Your task to perform on an android device: Go to wifi settings Image 0: 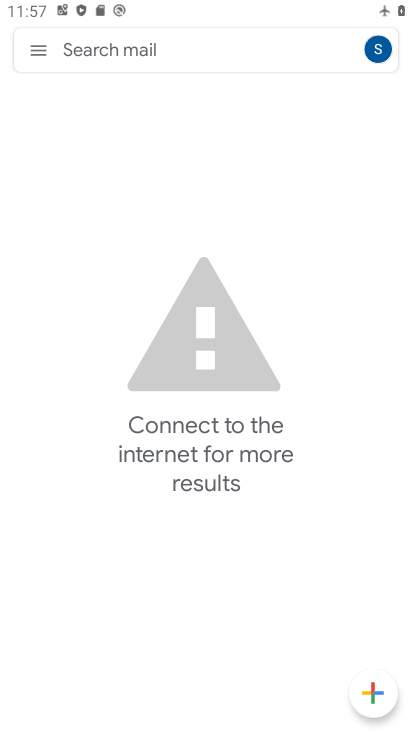
Step 0: press home button
Your task to perform on an android device: Go to wifi settings Image 1: 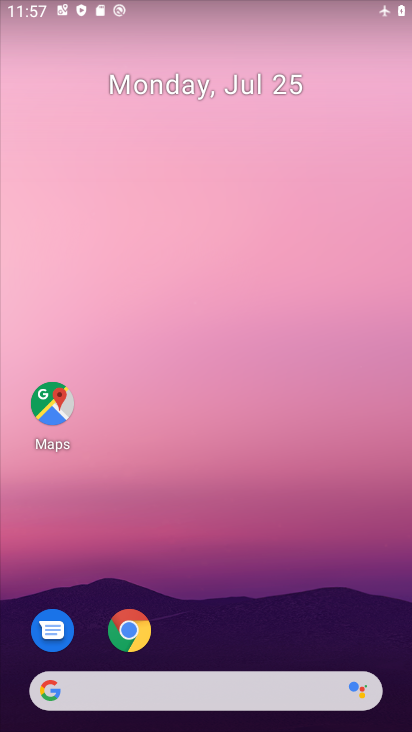
Step 1: drag from (350, 634) to (365, 123)
Your task to perform on an android device: Go to wifi settings Image 2: 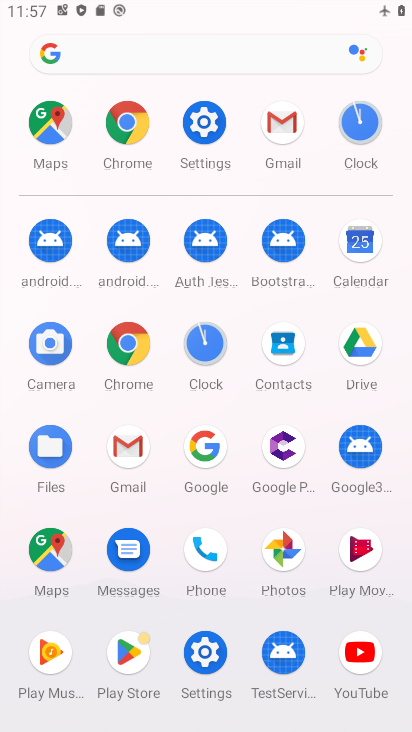
Step 2: click (203, 129)
Your task to perform on an android device: Go to wifi settings Image 3: 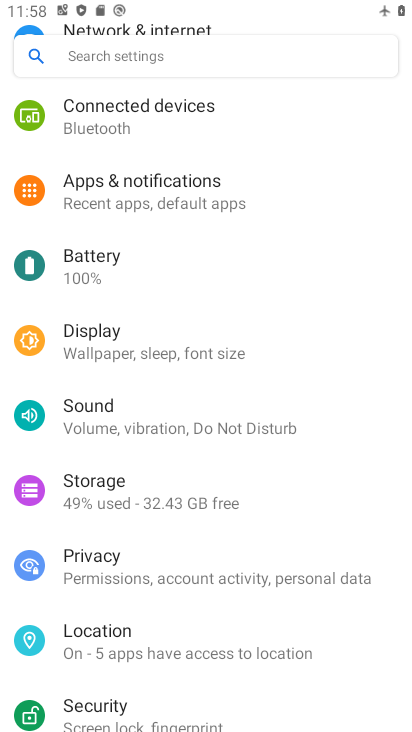
Step 3: drag from (331, 197) to (343, 286)
Your task to perform on an android device: Go to wifi settings Image 4: 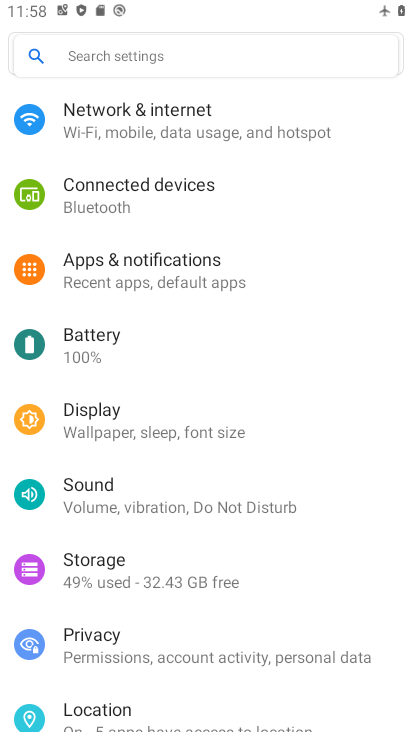
Step 4: drag from (360, 158) to (346, 276)
Your task to perform on an android device: Go to wifi settings Image 5: 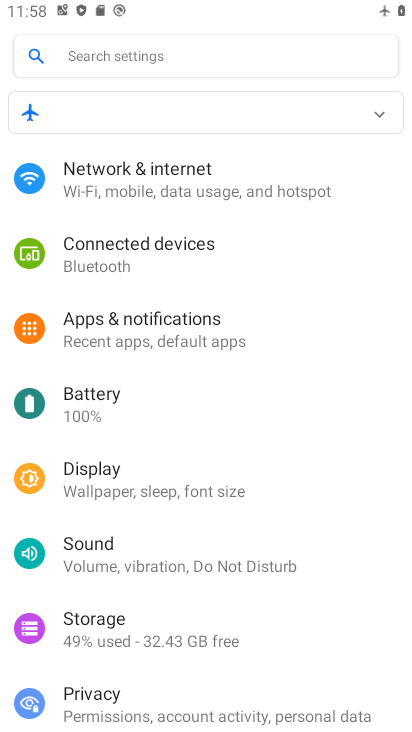
Step 5: drag from (346, 394) to (349, 336)
Your task to perform on an android device: Go to wifi settings Image 6: 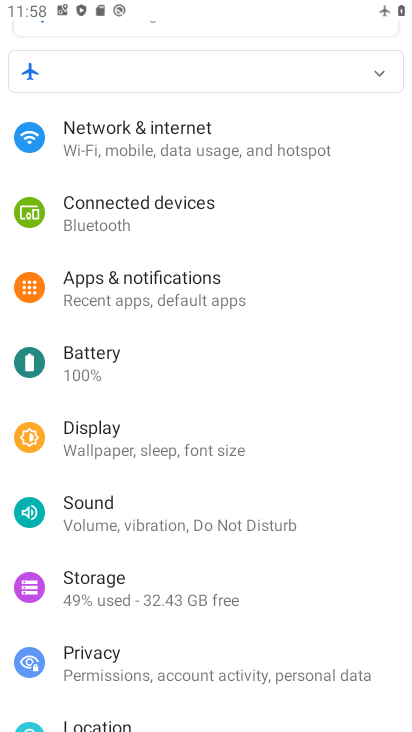
Step 6: drag from (354, 440) to (354, 330)
Your task to perform on an android device: Go to wifi settings Image 7: 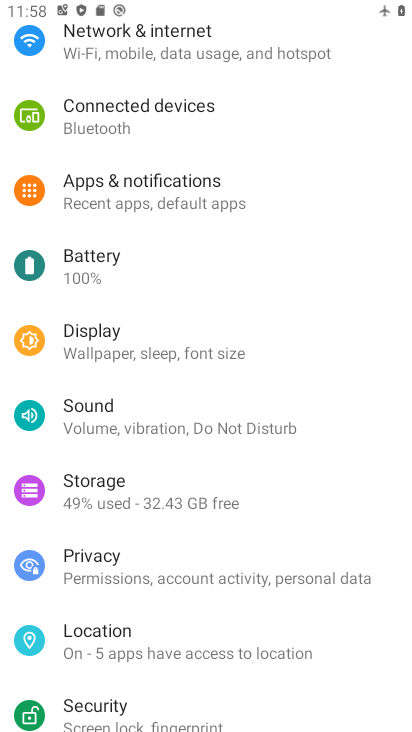
Step 7: drag from (355, 458) to (349, 360)
Your task to perform on an android device: Go to wifi settings Image 8: 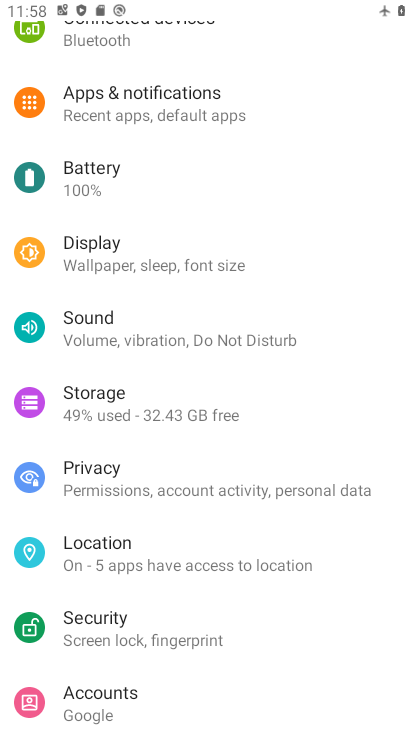
Step 8: drag from (350, 538) to (349, 432)
Your task to perform on an android device: Go to wifi settings Image 9: 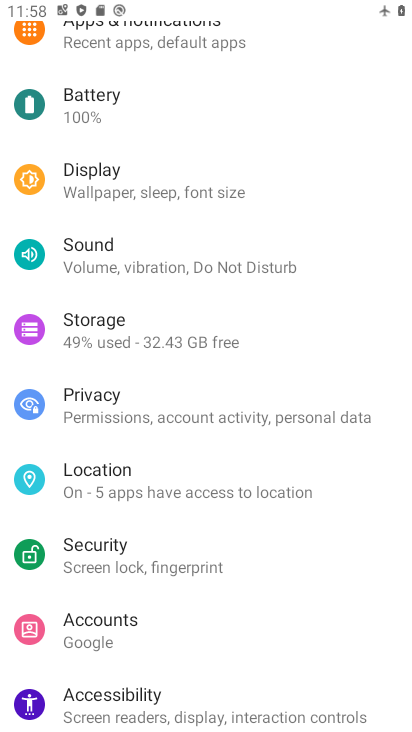
Step 9: drag from (334, 549) to (335, 447)
Your task to perform on an android device: Go to wifi settings Image 10: 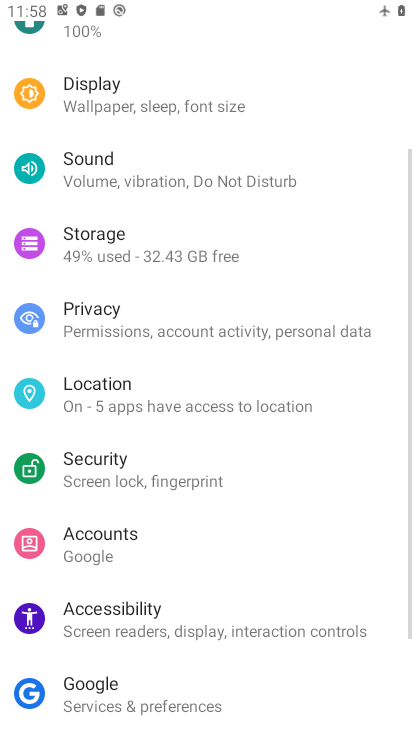
Step 10: drag from (350, 261) to (350, 381)
Your task to perform on an android device: Go to wifi settings Image 11: 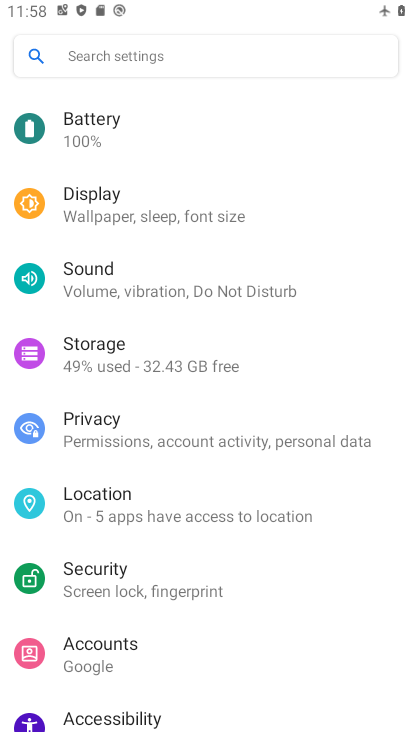
Step 11: drag from (360, 202) to (360, 357)
Your task to perform on an android device: Go to wifi settings Image 12: 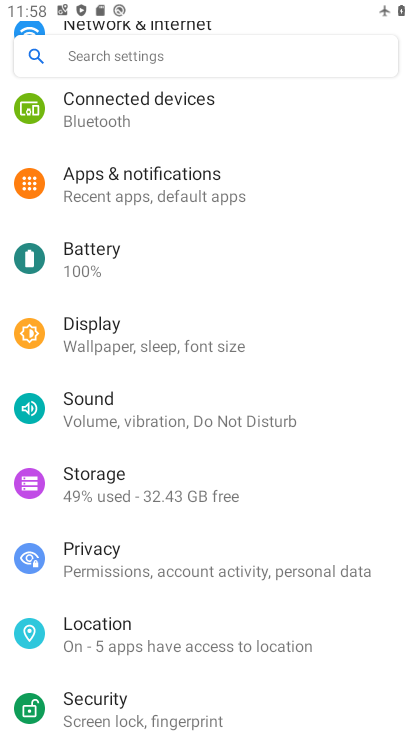
Step 12: drag from (351, 171) to (356, 363)
Your task to perform on an android device: Go to wifi settings Image 13: 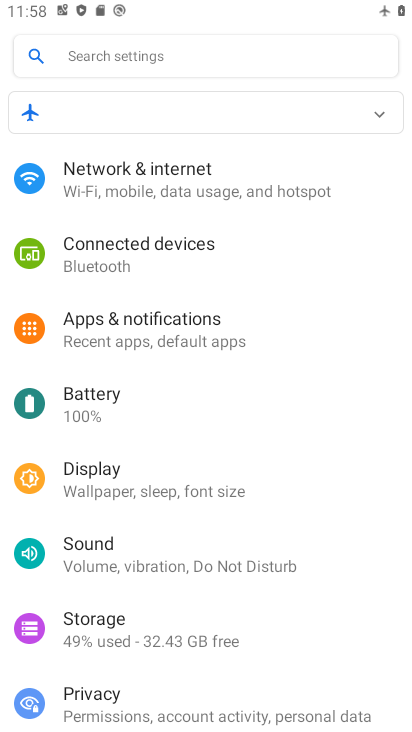
Step 13: click (322, 178)
Your task to perform on an android device: Go to wifi settings Image 14: 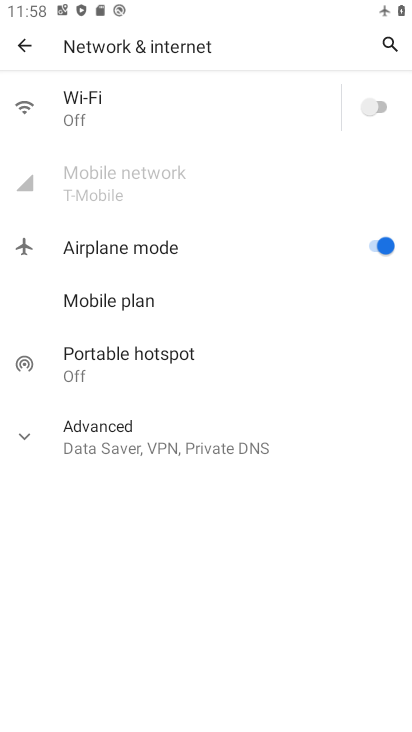
Step 14: click (126, 114)
Your task to perform on an android device: Go to wifi settings Image 15: 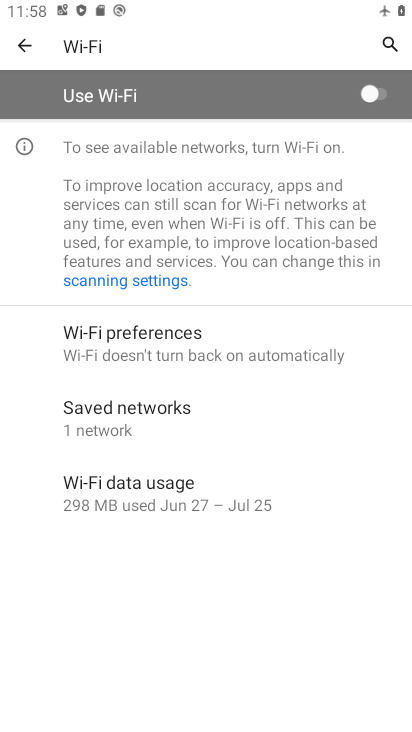
Step 15: task complete